Your task to perform on an android device: Search for flights from Boston to Zurich Image 0: 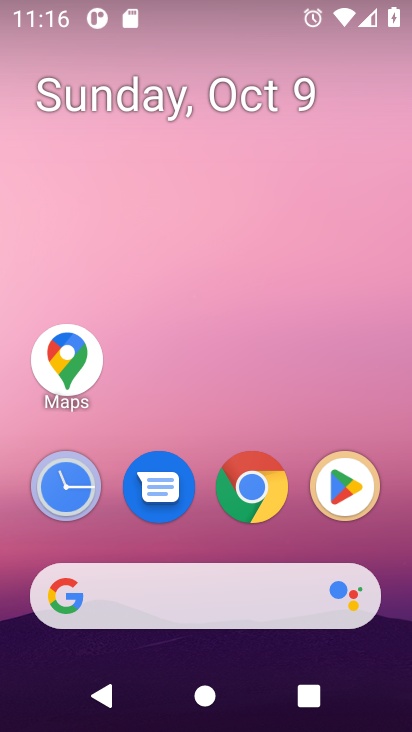
Step 0: drag from (212, 560) to (190, 79)
Your task to perform on an android device: Search for flights from Boston to Zurich Image 1: 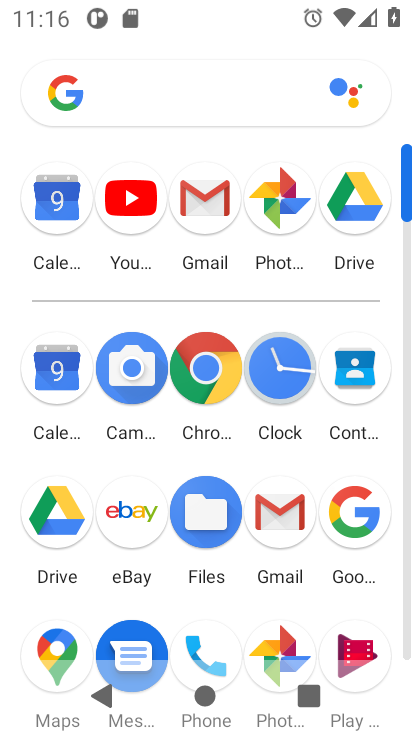
Step 1: click (200, 367)
Your task to perform on an android device: Search for flights from Boston to Zurich Image 2: 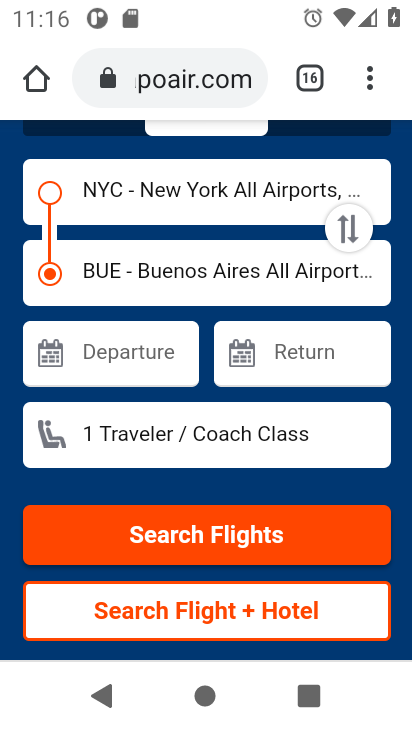
Step 2: drag from (367, 85) to (135, 153)
Your task to perform on an android device: Search for flights from Boston to Zurich Image 3: 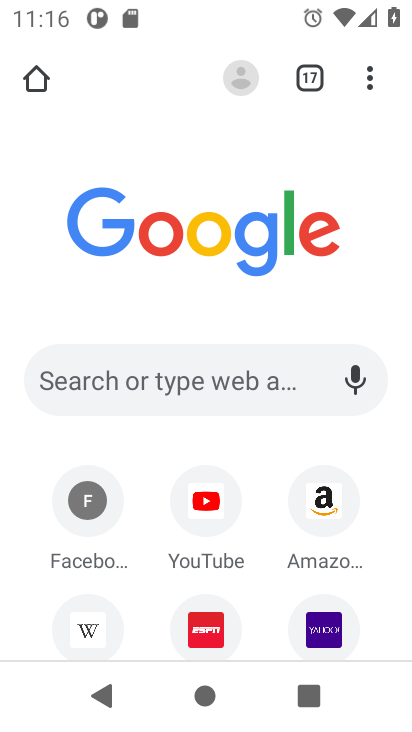
Step 3: click (206, 394)
Your task to perform on an android device: Search for flights from Boston to Zurich Image 4: 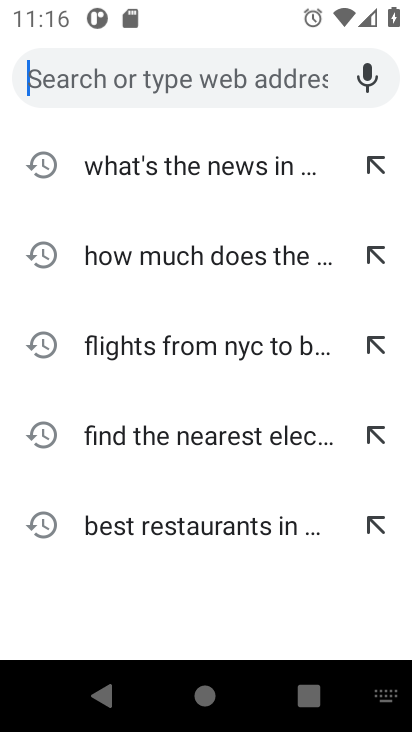
Step 4: type " flights from Boston to Zurich"
Your task to perform on an android device: Search for flights from Boston to Zurich Image 5: 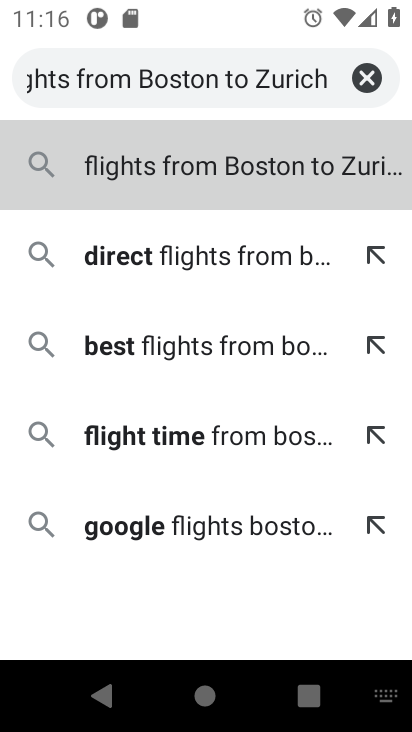
Step 5: type ""
Your task to perform on an android device: Search for flights from Boston to Zurich Image 6: 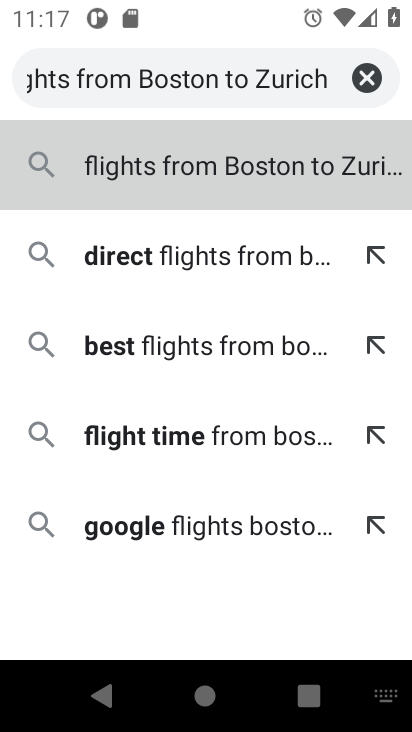
Step 6: click (230, 162)
Your task to perform on an android device: Search for flights from Boston to Zurich Image 7: 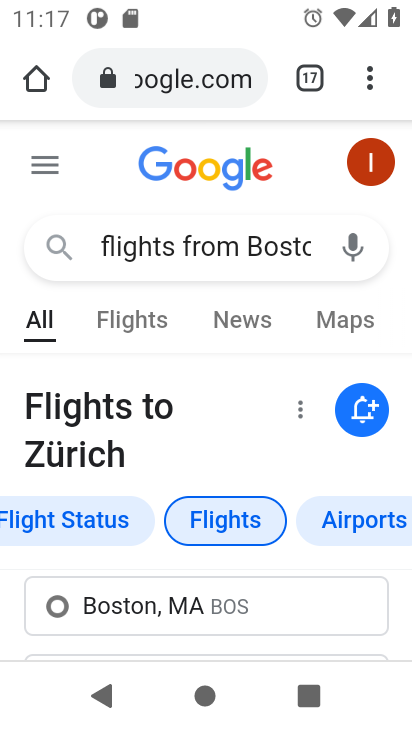
Step 7: task complete